Your task to perform on an android device: change text size in settings app Image 0: 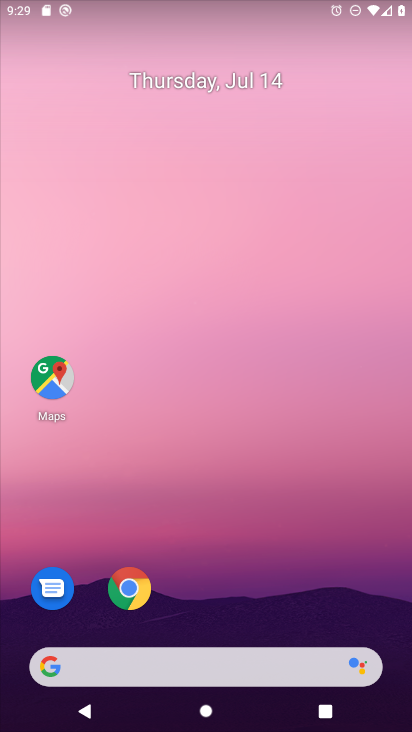
Step 0: drag from (286, 595) to (237, 97)
Your task to perform on an android device: change text size in settings app Image 1: 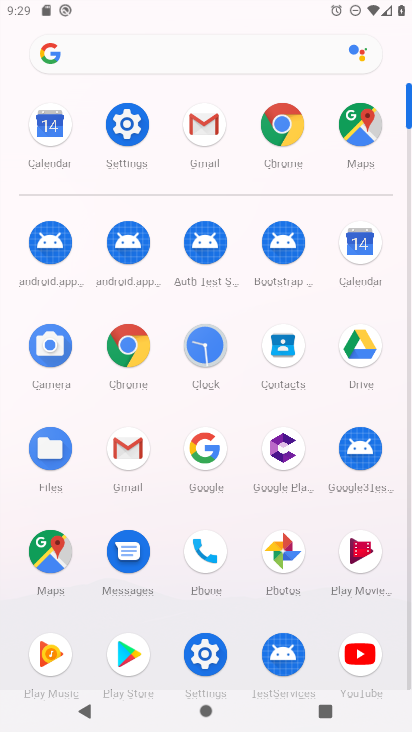
Step 1: click (113, 119)
Your task to perform on an android device: change text size in settings app Image 2: 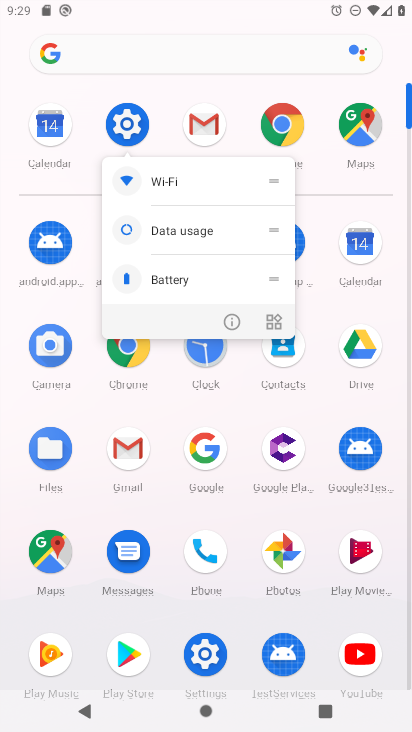
Step 2: click (113, 118)
Your task to perform on an android device: change text size in settings app Image 3: 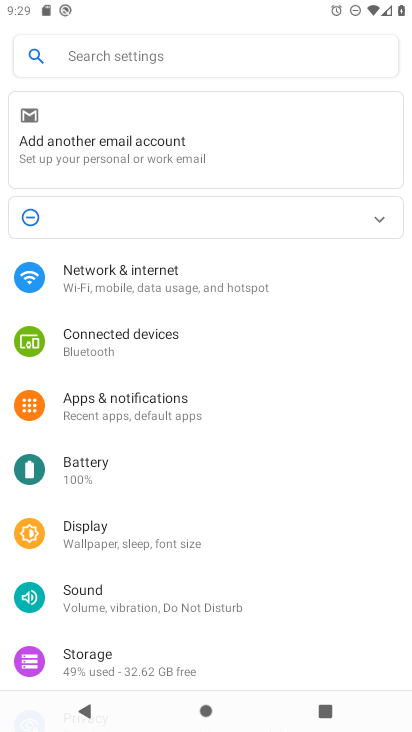
Step 3: click (119, 545)
Your task to perform on an android device: change text size in settings app Image 4: 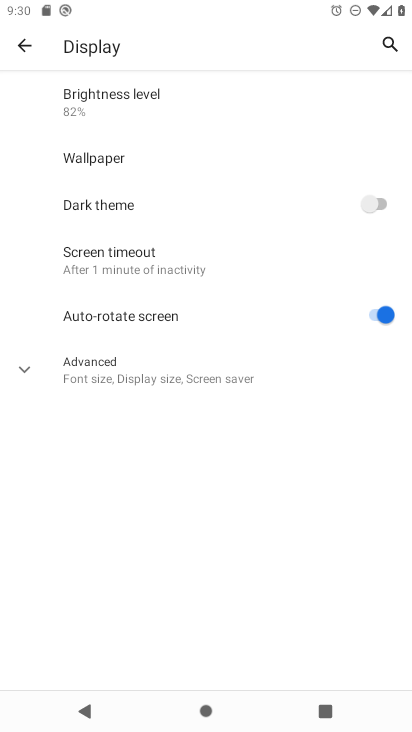
Step 4: click (161, 376)
Your task to perform on an android device: change text size in settings app Image 5: 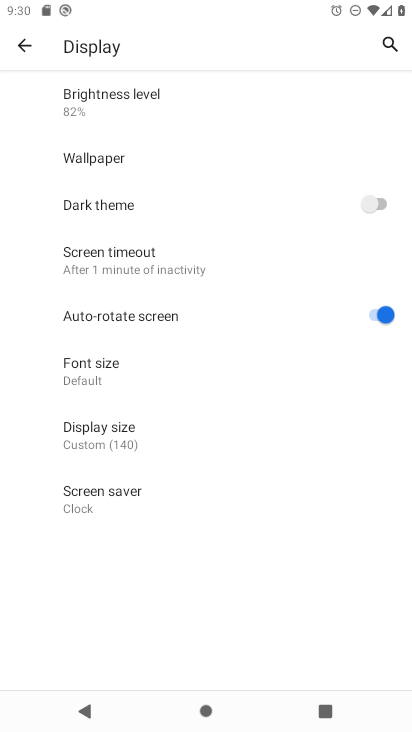
Step 5: click (110, 362)
Your task to perform on an android device: change text size in settings app Image 6: 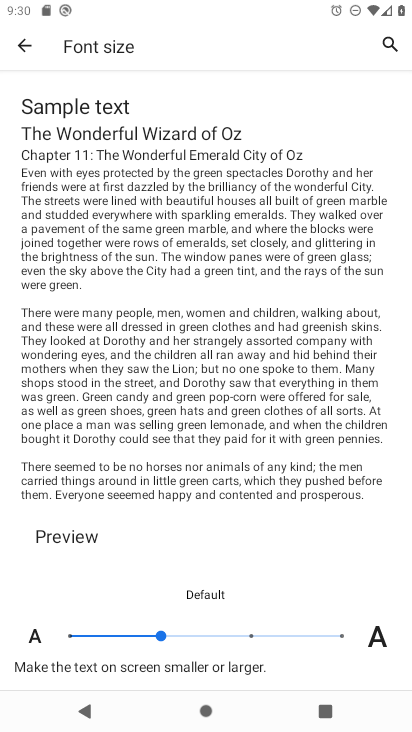
Step 6: click (259, 620)
Your task to perform on an android device: change text size in settings app Image 7: 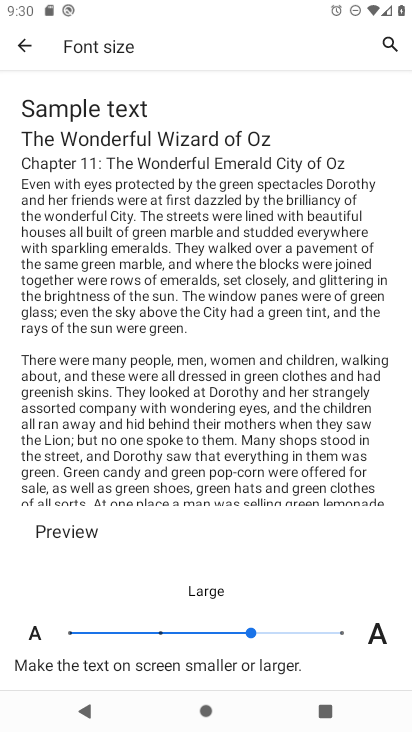
Step 7: task complete